Your task to perform on an android device: set an alarm Image 0: 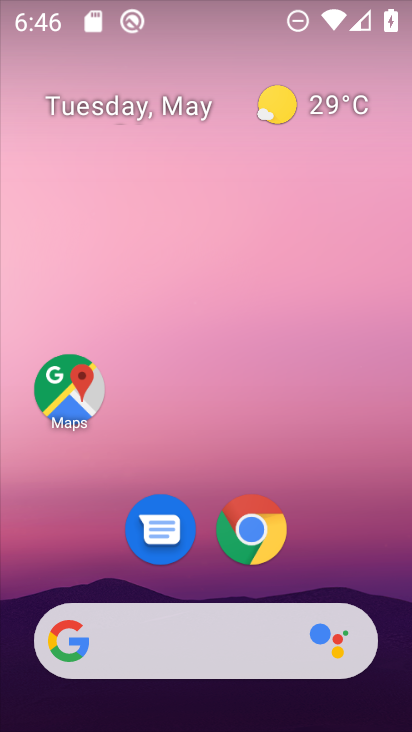
Step 0: drag from (398, 620) to (308, 7)
Your task to perform on an android device: set an alarm Image 1: 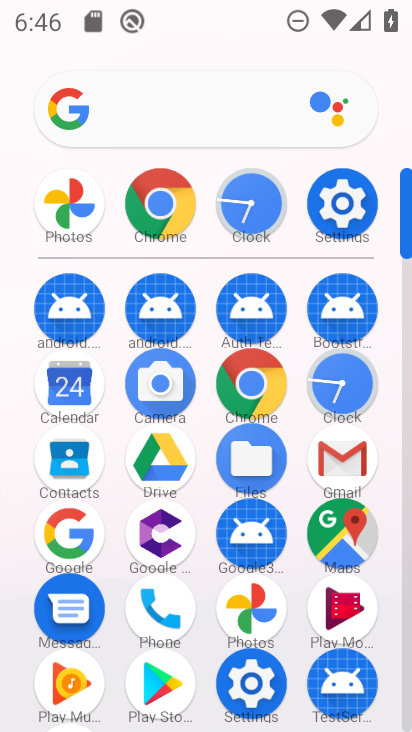
Step 1: click (347, 397)
Your task to perform on an android device: set an alarm Image 2: 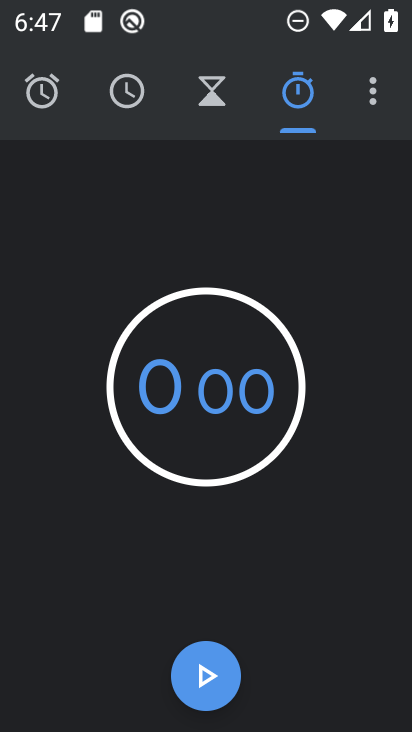
Step 2: click (52, 95)
Your task to perform on an android device: set an alarm Image 3: 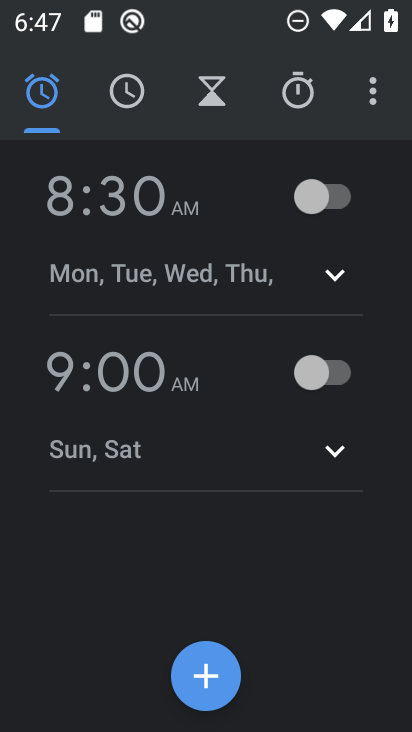
Step 3: click (349, 208)
Your task to perform on an android device: set an alarm Image 4: 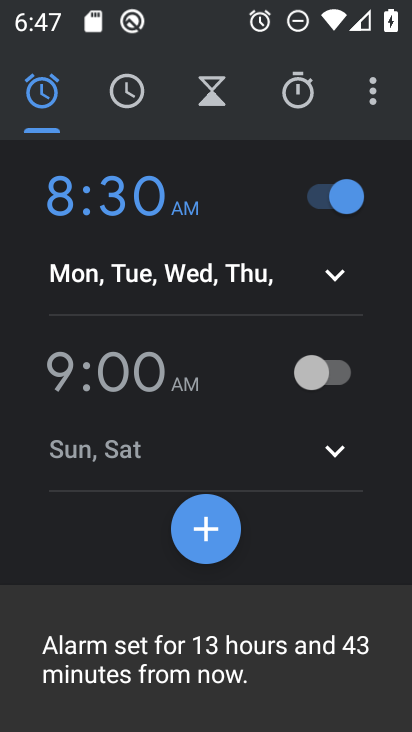
Step 4: task complete